Your task to perform on an android device: change the clock display to analog Image 0: 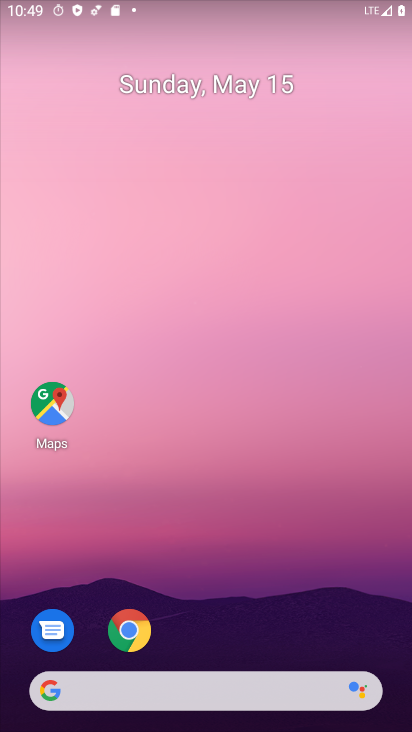
Step 0: drag from (265, 602) to (371, 74)
Your task to perform on an android device: change the clock display to analog Image 1: 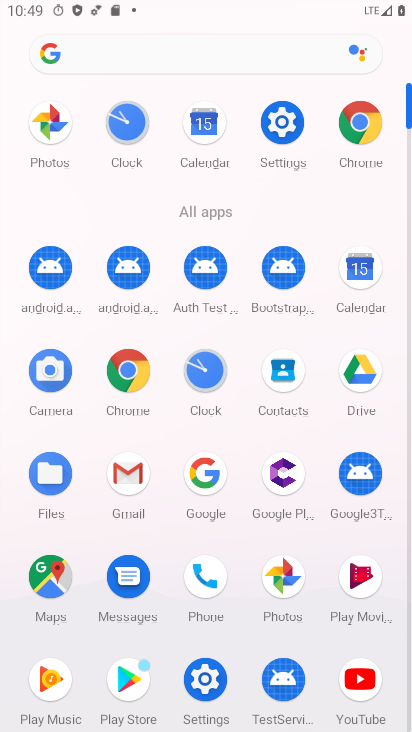
Step 1: click (202, 370)
Your task to perform on an android device: change the clock display to analog Image 2: 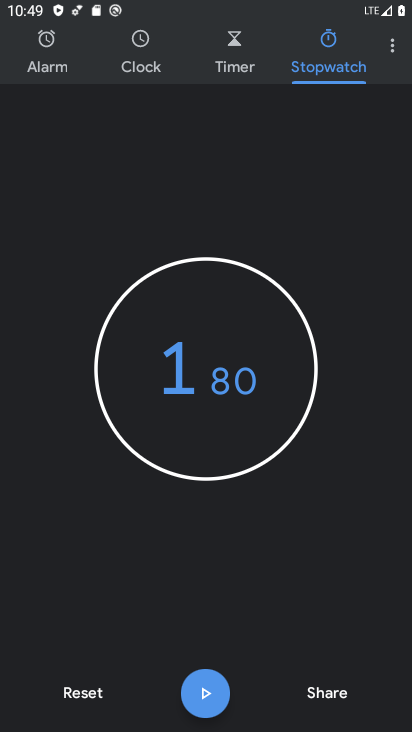
Step 2: click (390, 37)
Your task to perform on an android device: change the clock display to analog Image 3: 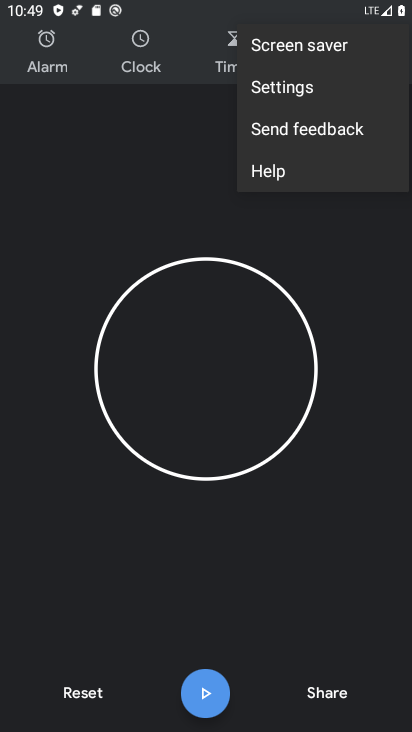
Step 3: click (283, 83)
Your task to perform on an android device: change the clock display to analog Image 4: 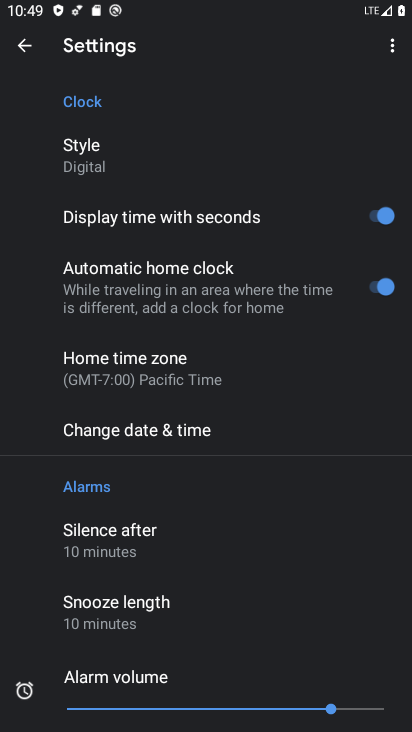
Step 4: click (130, 154)
Your task to perform on an android device: change the clock display to analog Image 5: 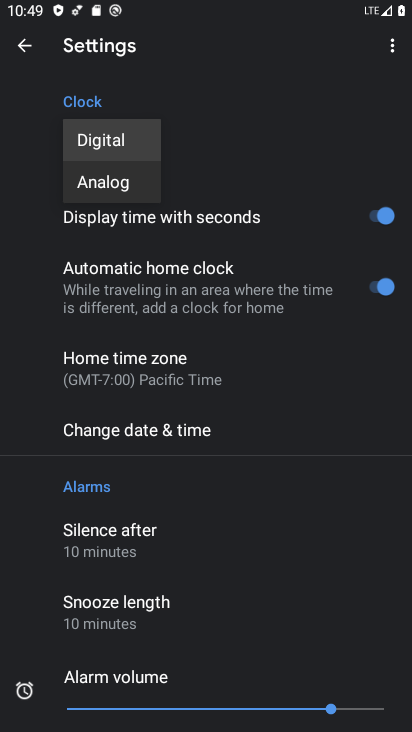
Step 5: click (106, 188)
Your task to perform on an android device: change the clock display to analog Image 6: 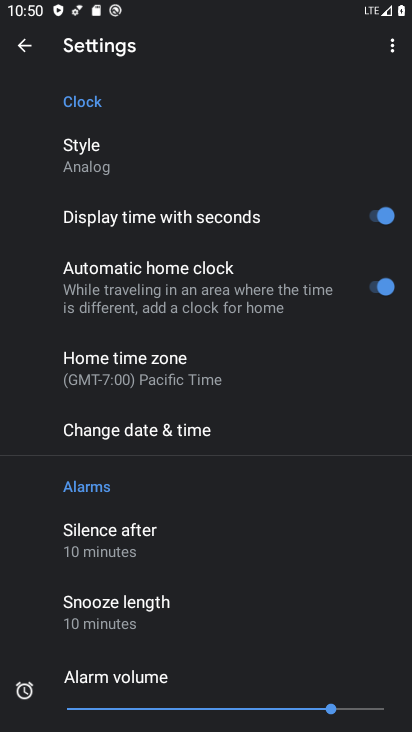
Step 6: task complete